Your task to perform on an android device: Search for Italian restaurants on Maps Image 0: 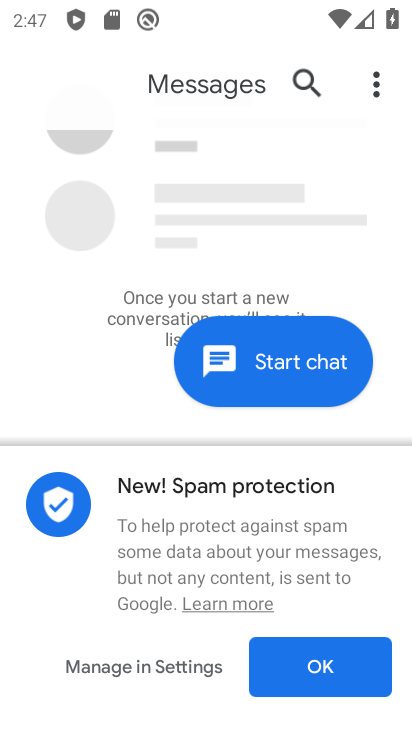
Step 0: press home button
Your task to perform on an android device: Search for Italian restaurants on Maps Image 1: 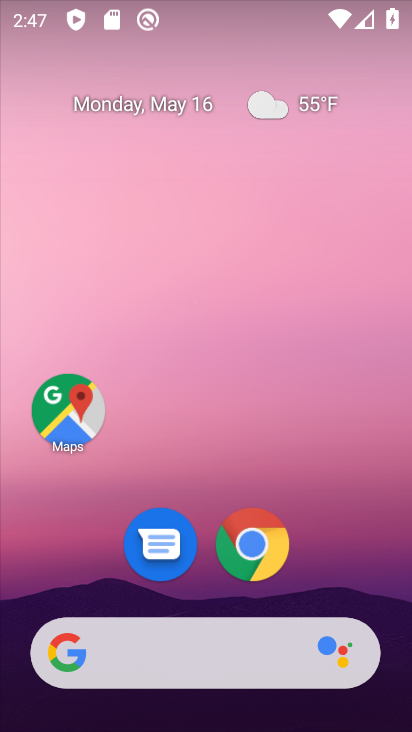
Step 1: drag from (382, 593) to (291, 113)
Your task to perform on an android device: Search for Italian restaurants on Maps Image 2: 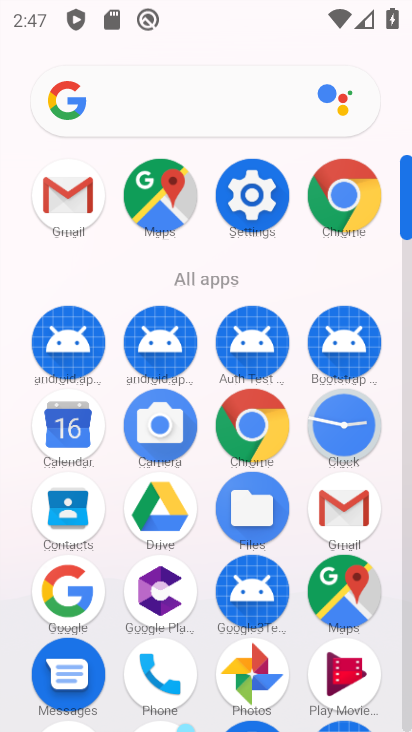
Step 2: click (176, 193)
Your task to perform on an android device: Search for Italian restaurants on Maps Image 3: 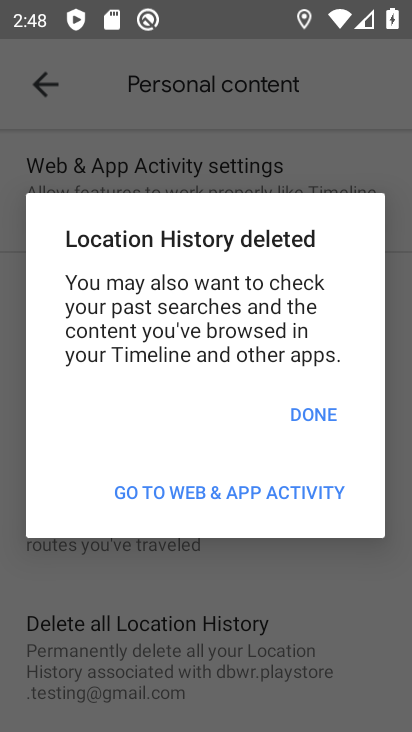
Step 3: press back button
Your task to perform on an android device: Search for Italian restaurants on Maps Image 4: 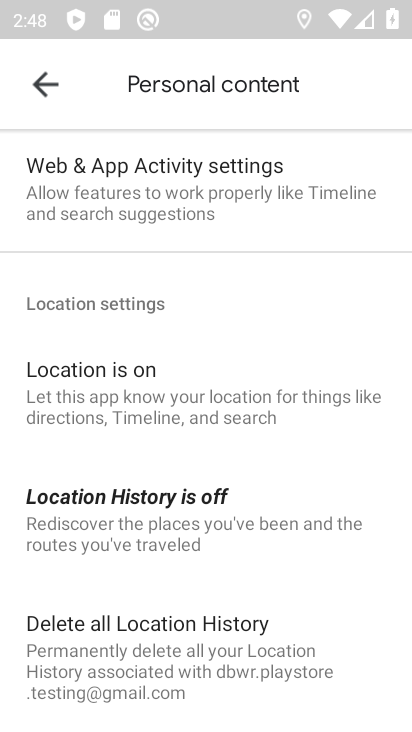
Step 4: click (32, 80)
Your task to perform on an android device: Search for Italian restaurants on Maps Image 5: 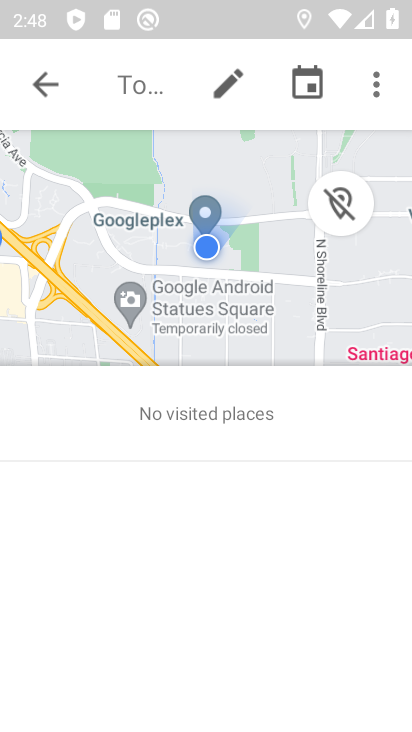
Step 5: click (65, 68)
Your task to perform on an android device: Search for Italian restaurants on Maps Image 6: 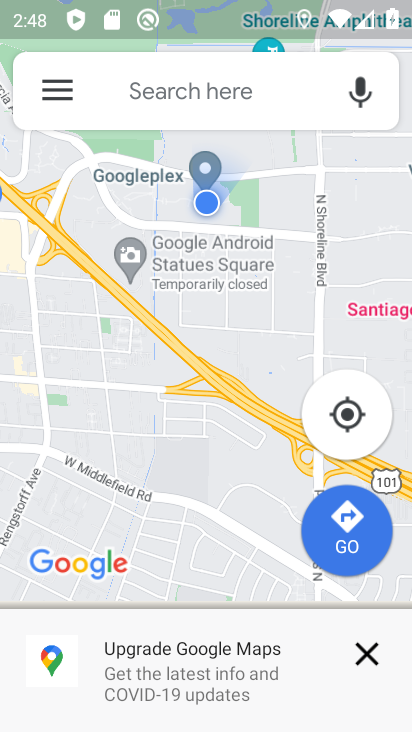
Step 6: click (197, 84)
Your task to perform on an android device: Search for Italian restaurants on Maps Image 7: 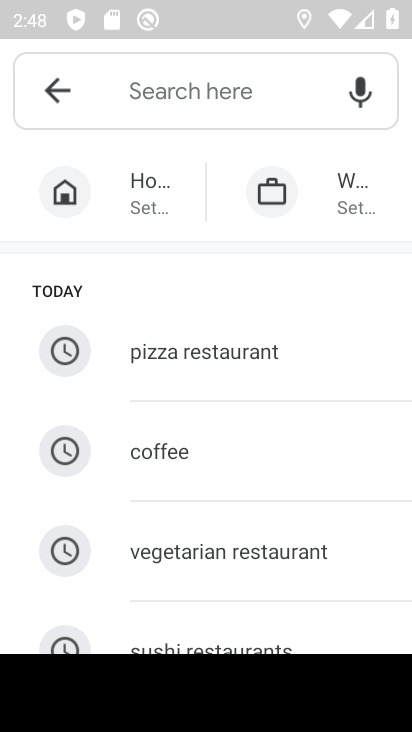
Step 7: drag from (347, 594) to (298, 298)
Your task to perform on an android device: Search for Italian restaurants on Maps Image 8: 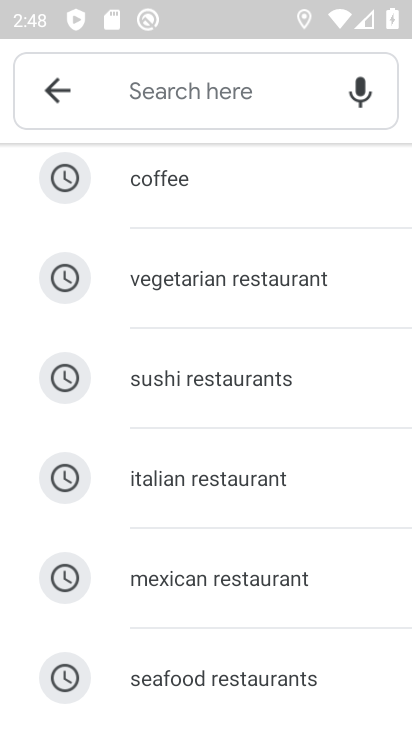
Step 8: click (170, 470)
Your task to perform on an android device: Search for Italian restaurants on Maps Image 9: 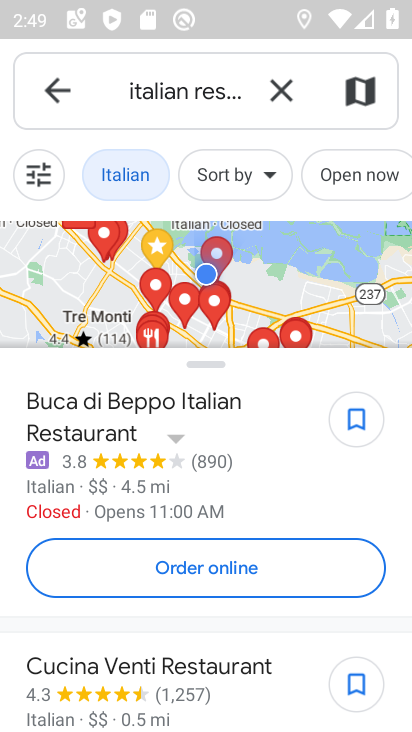
Step 9: task complete